Your task to perform on an android device: turn vacation reply on in the gmail app Image 0: 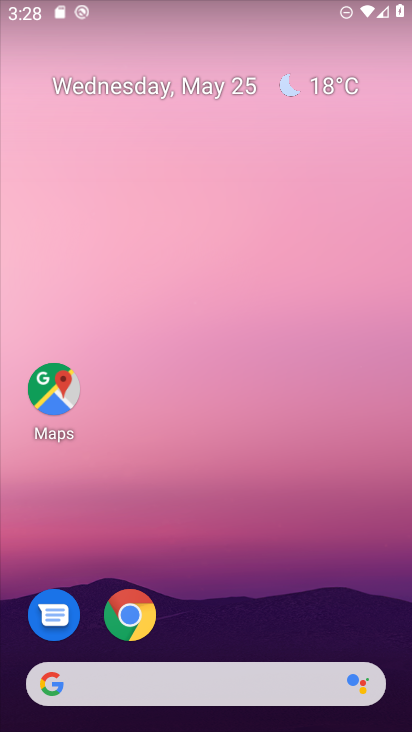
Step 0: drag from (314, 615) to (294, 98)
Your task to perform on an android device: turn vacation reply on in the gmail app Image 1: 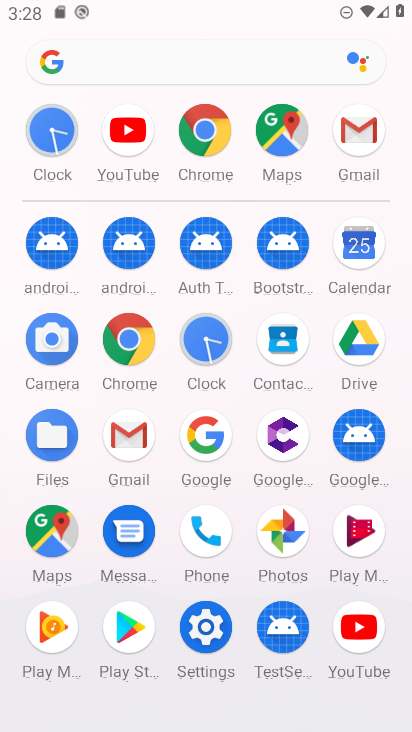
Step 1: click (357, 130)
Your task to perform on an android device: turn vacation reply on in the gmail app Image 2: 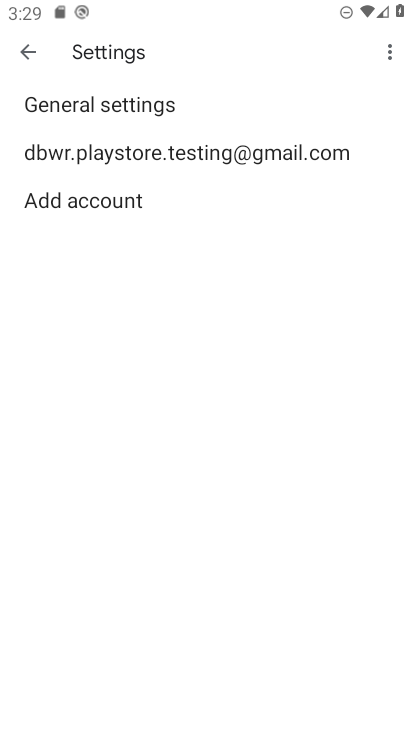
Step 2: click (266, 153)
Your task to perform on an android device: turn vacation reply on in the gmail app Image 3: 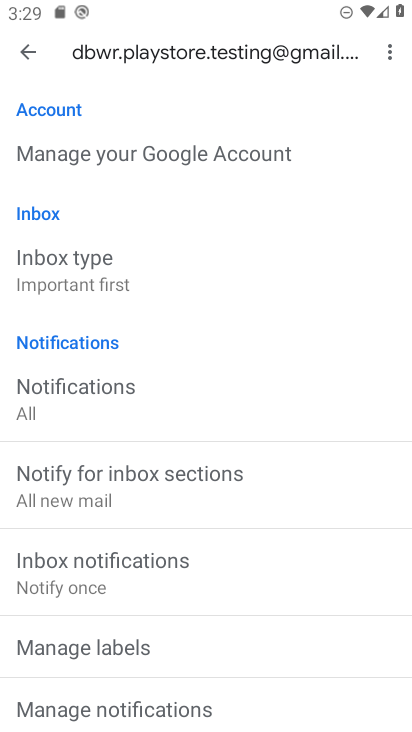
Step 3: drag from (231, 571) to (227, 73)
Your task to perform on an android device: turn vacation reply on in the gmail app Image 4: 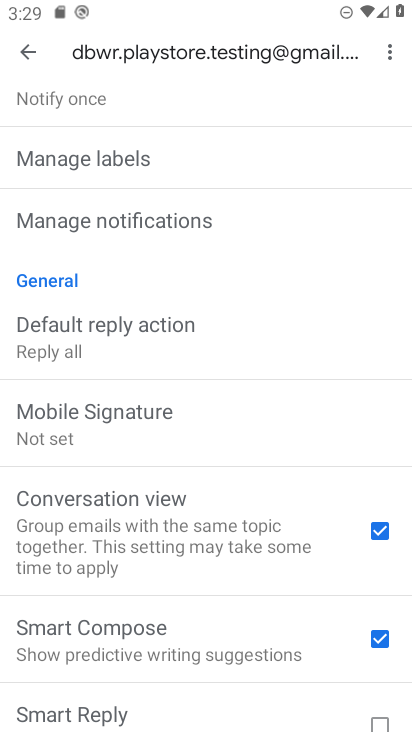
Step 4: drag from (253, 565) to (265, 160)
Your task to perform on an android device: turn vacation reply on in the gmail app Image 5: 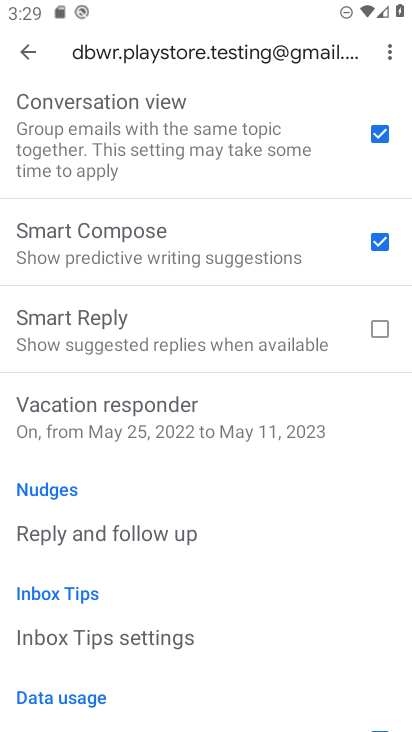
Step 5: click (224, 413)
Your task to perform on an android device: turn vacation reply on in the gmail app Image 6: 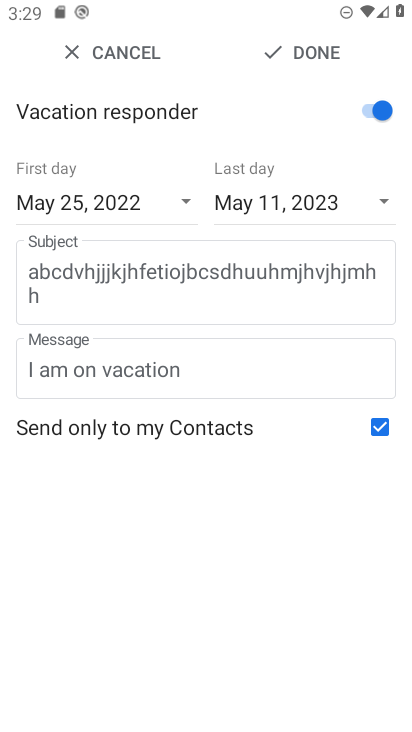
Step 6: task complete